Your task to perform on an android device: turn notification dots off Image 0: 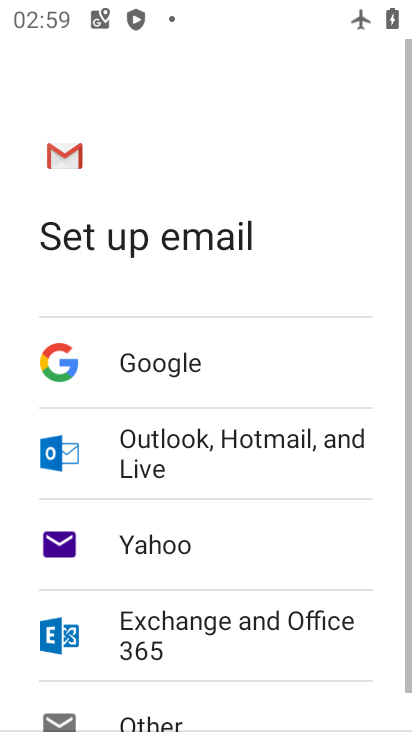
Step 0: press home button
Your task to perform on an android device: turn notification dots off Image 1: 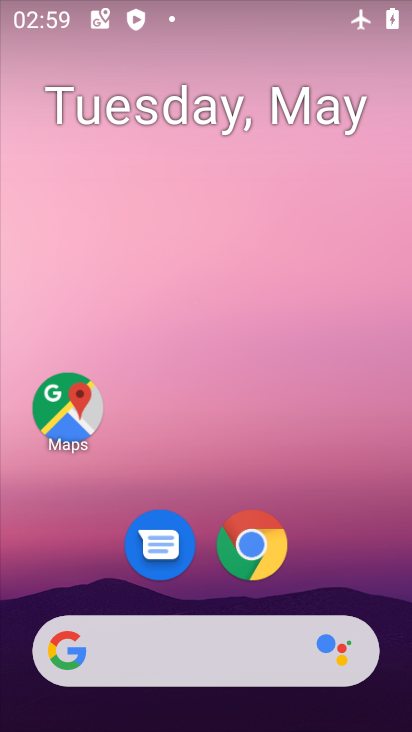
Step 1: drag from (393, 600) to (321, 149)
Your task to perform on an android device: turn notification dots off Image 2: 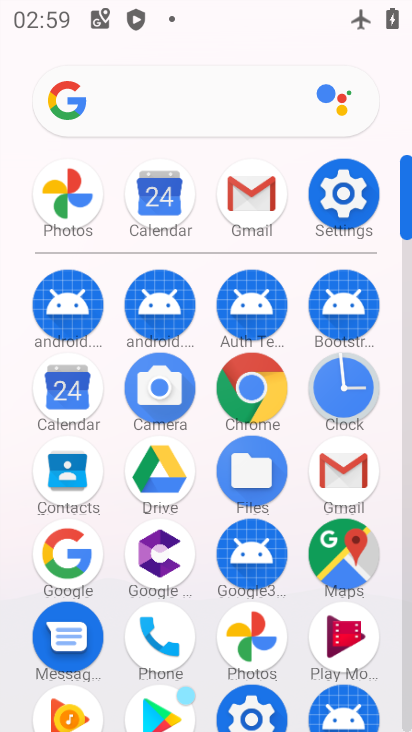
Step 2: click (410, 694)
Your task to perform on an android device: turn notification dots off Image 3: 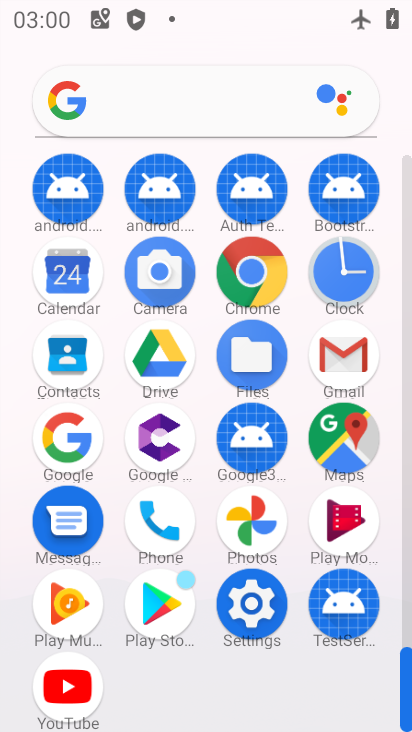
Step 3: click (249, 601)
Your task to perform on an android device: turn notification dots off Image 4: 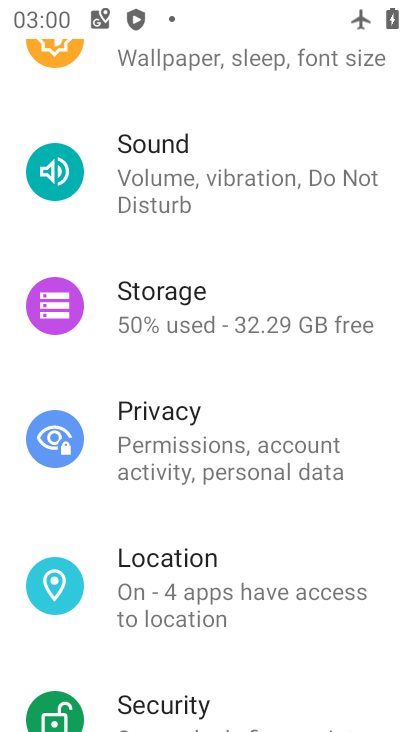
Step 4: drag from (314, 281) to (321, 536)
Your task to perform on an android device: turn notification dots off Image 5: 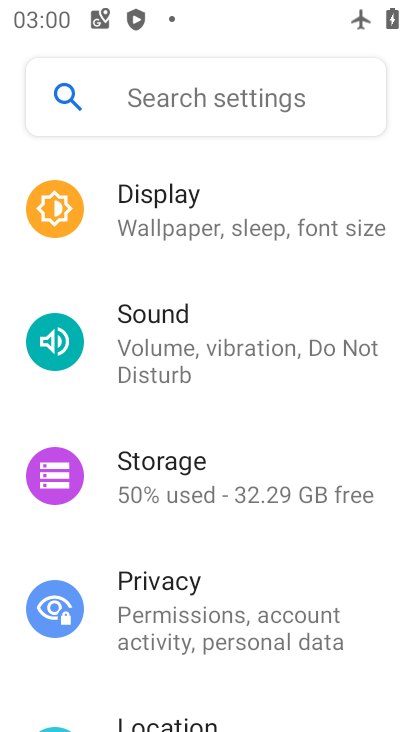
Step 5: drag from (308, 157) to (331, 502)
Your task to perform on an android device: turn notification dots off Image 6: 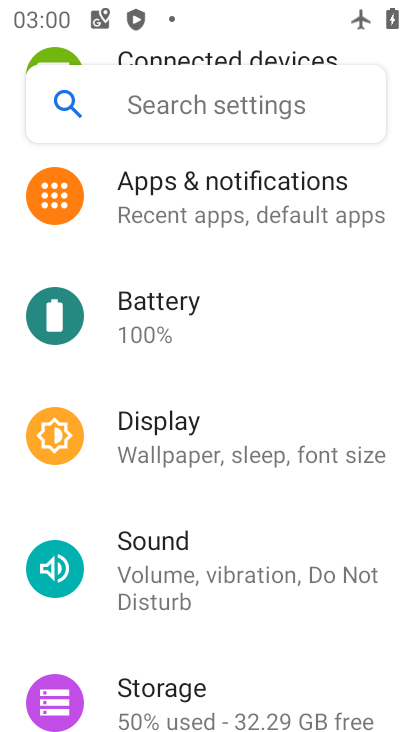
Step 6: click (193, 197)
Your task to perform on an android device: turn notification dots off Image 7: 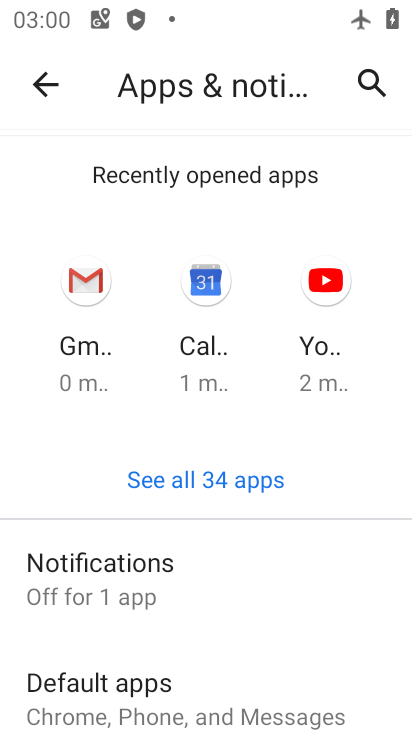
Step 7: click (145, 581)
Your task to perform on an android device: turn notification dots off Image 8: 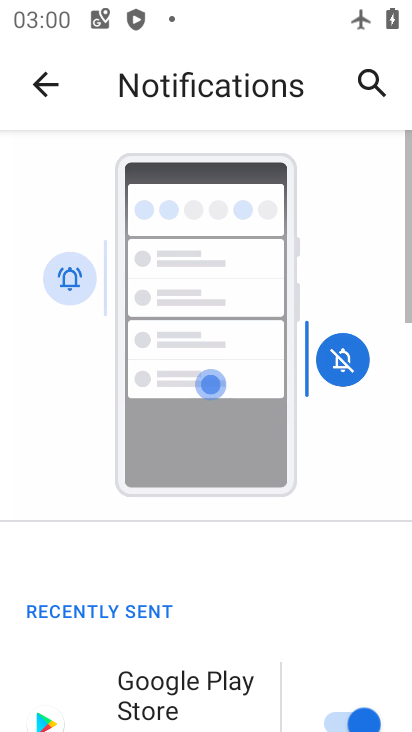
Step 8: drag from (292, 666) to (228, 294)
Your task to perform on an android device: turn notification dots off Image 9: 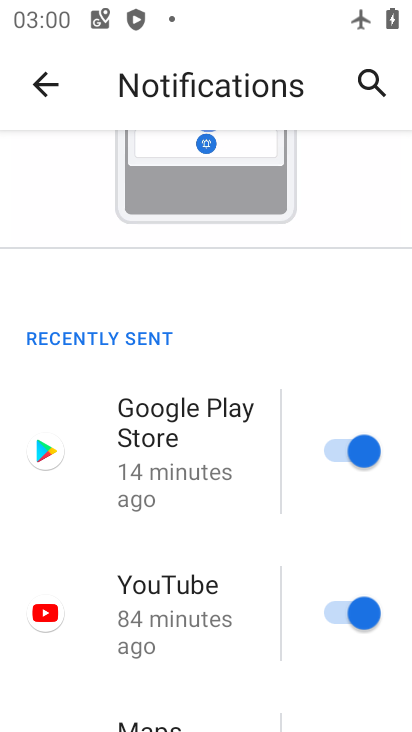
Step 9: drag from (273, 685) to (224, 208)
Your task to perform on an android device: turn notification dots off Image 10: 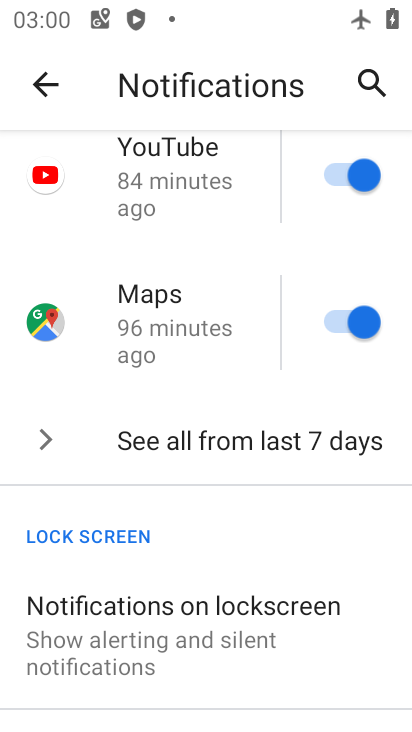
Step 10: drag from (273, 623) to (272, 232)
Your task to perform on an android device: turn notification dots off Image 11: 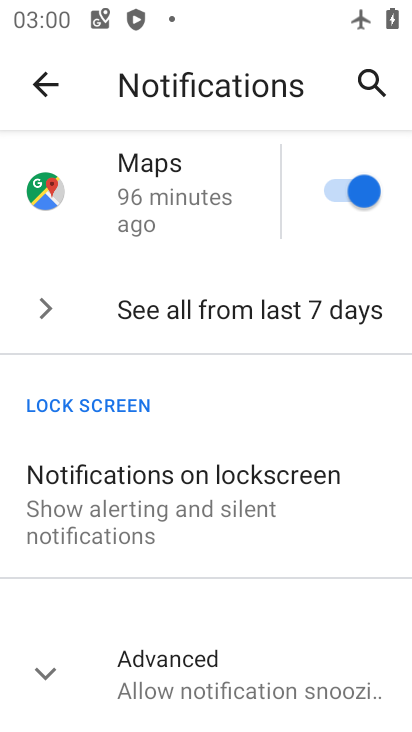
Step 11: click (41, 675)
Your task to perform on an android device: turn notification dots off Image 12: 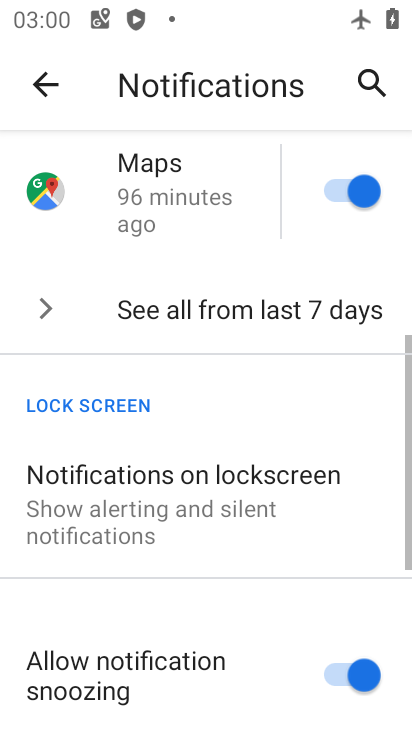
Step 12: drag from (293, 667) to (228, 185)
Your task to perform on an android device: turn notification dots off Image 13: 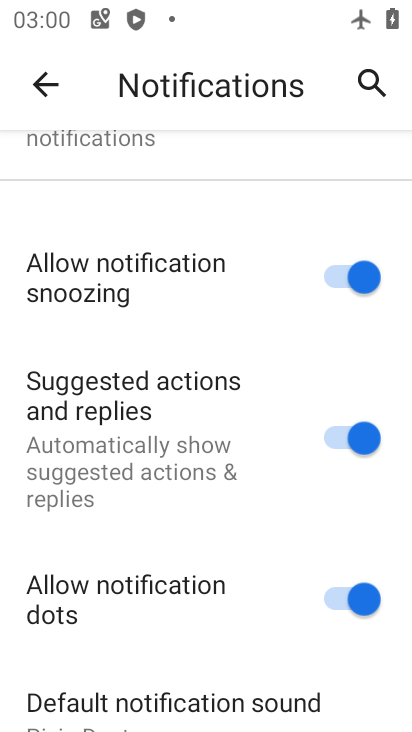
Step 13: click (330, 592)
Your task to perform on an android device: turn notification dots off Image 14: 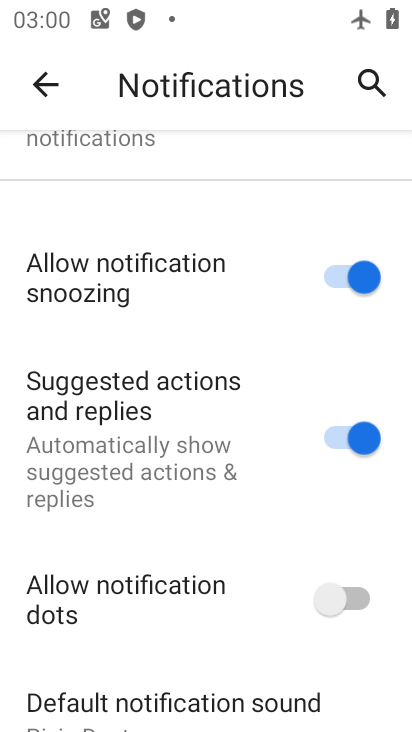
Step 14: task complete